Your task to perform on an android device: Search for asus zenbook on walmart.com, select the first entry, and add it to the cart. Image 0: 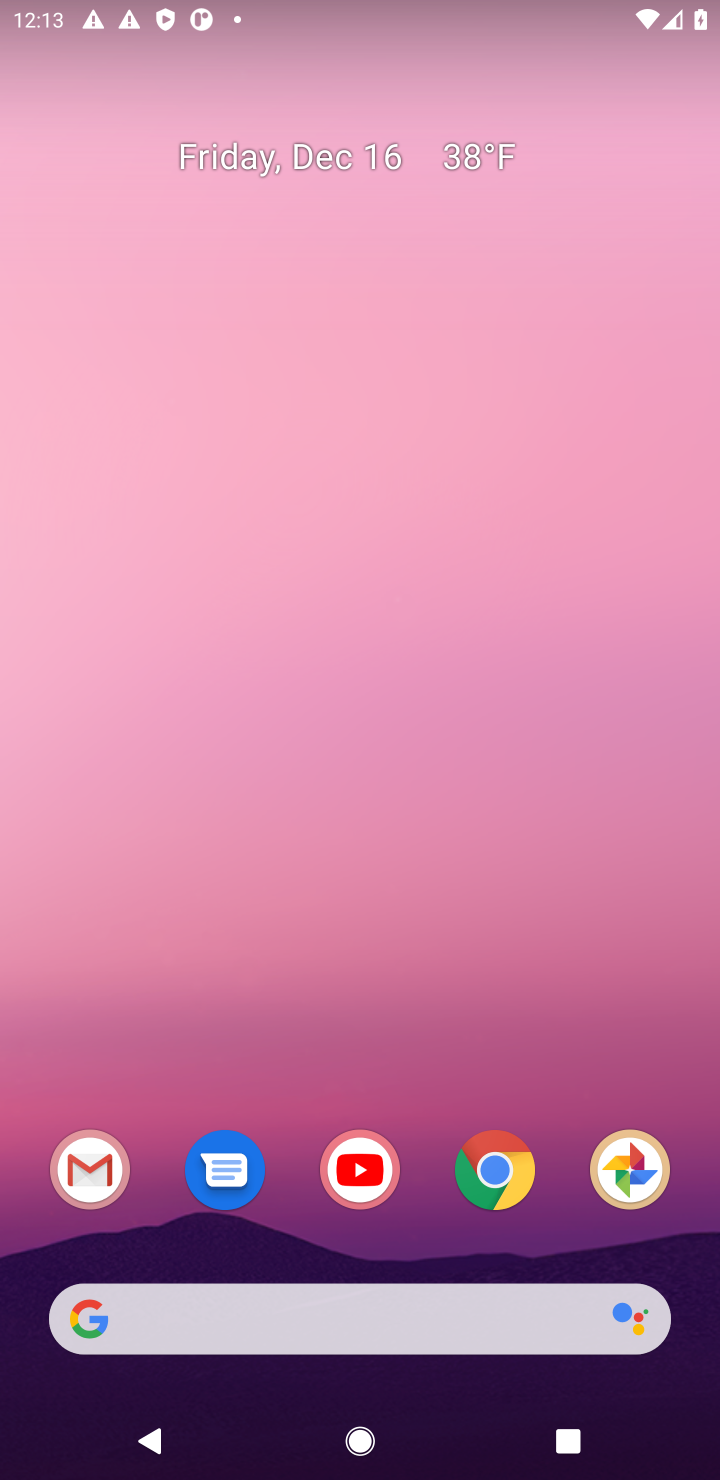
Step 0: click (485, 1181)
Your task to perform on an android device: Search for asus zenbook on walmart.com, select the first entry, and add it to the cart. Image 1: 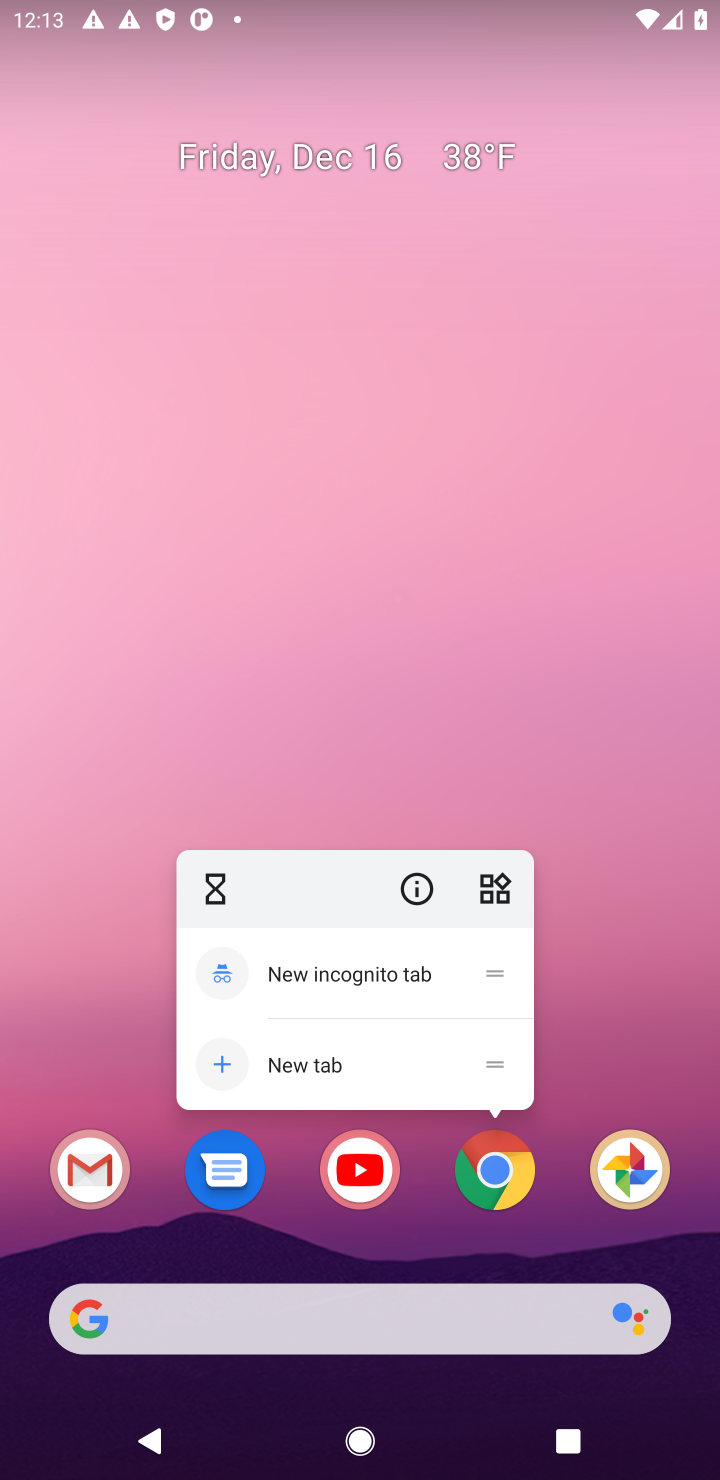
Step 1: click (490, 1176)
Your task to perform on an android device: Search for asus zenbook on walmart.com, select the first entry, and add it to the cart. Image 2: 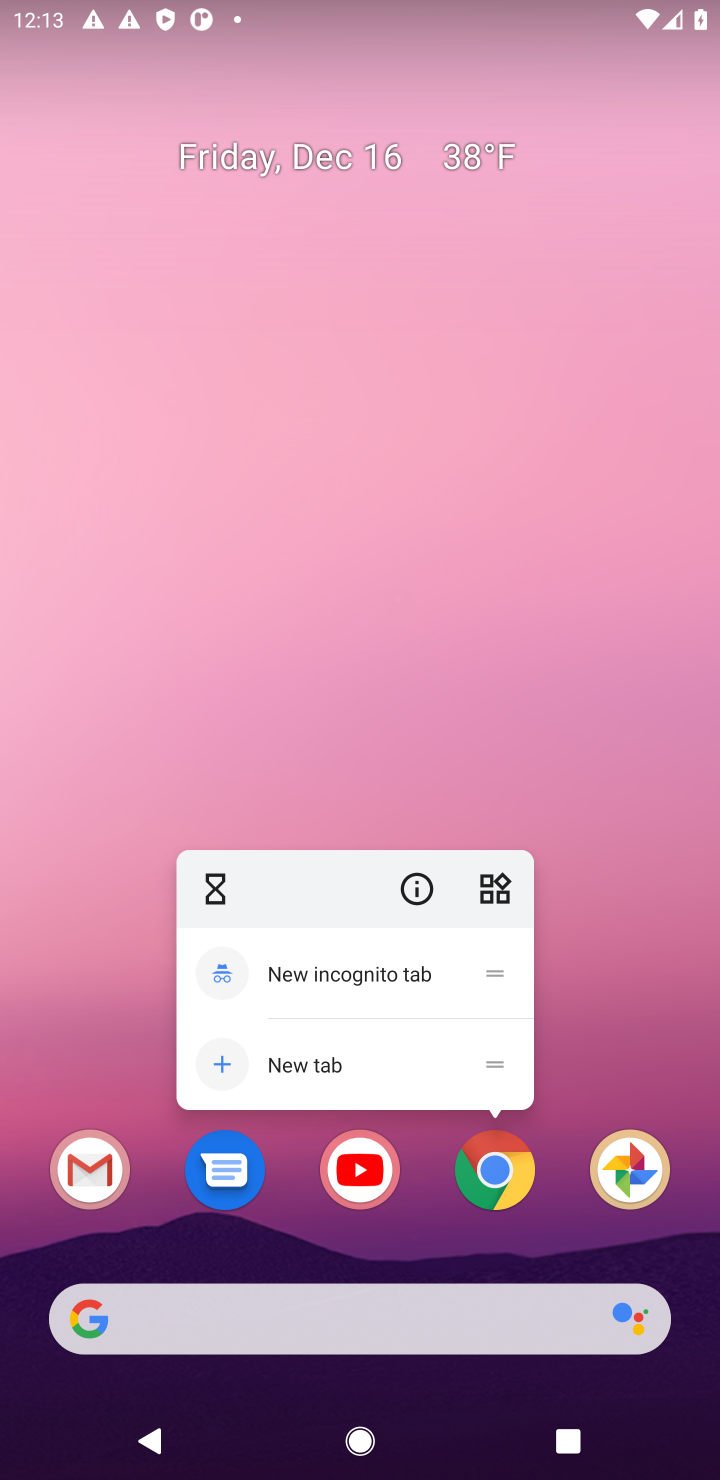
Step 2: click (490, 1176)
Your task to perform on an android device: Search for asus zenbook on walmart.com, select the first entry, and add it to the cart. Image 3: 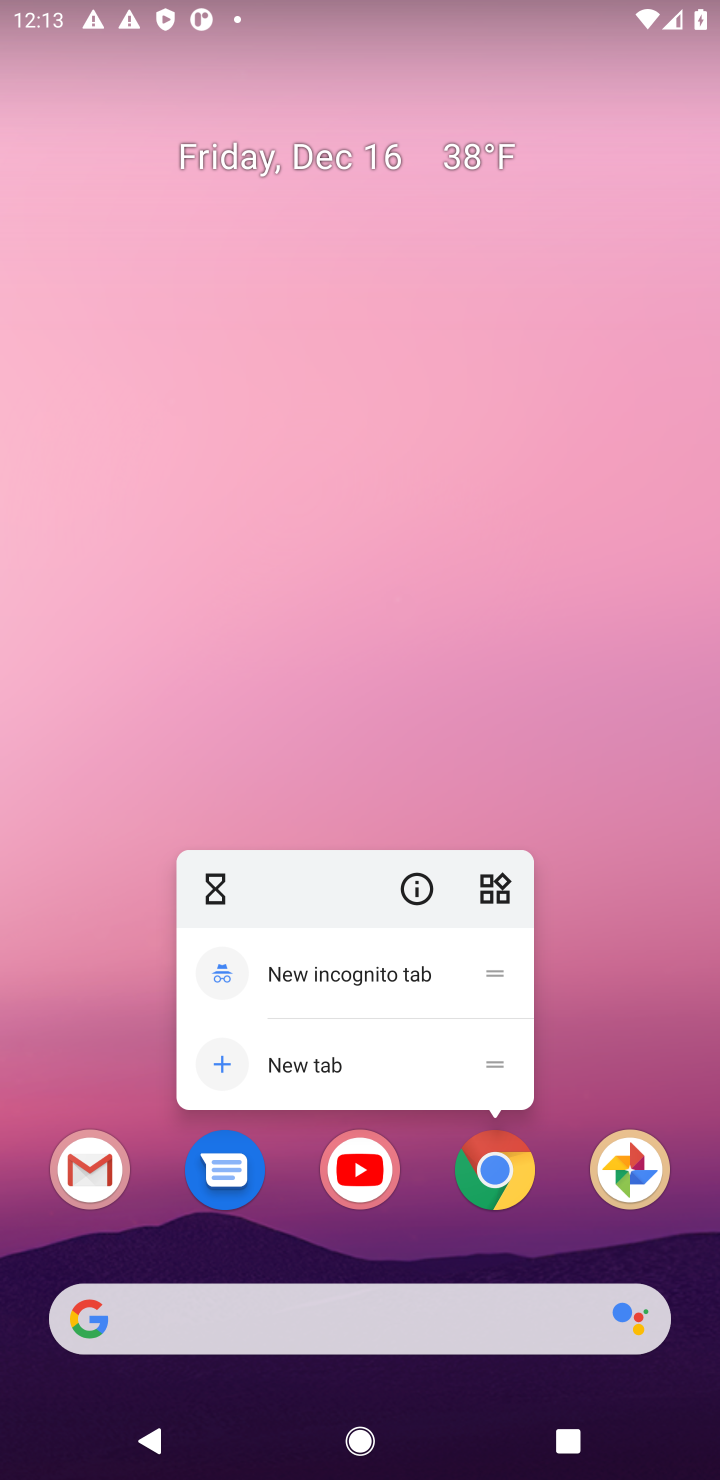
Step 3: click (510, 1176)
Your task to perform on an android device: Search for asus zenbook on walmart.com, select the first entry, and add it to the cart. Image 4: 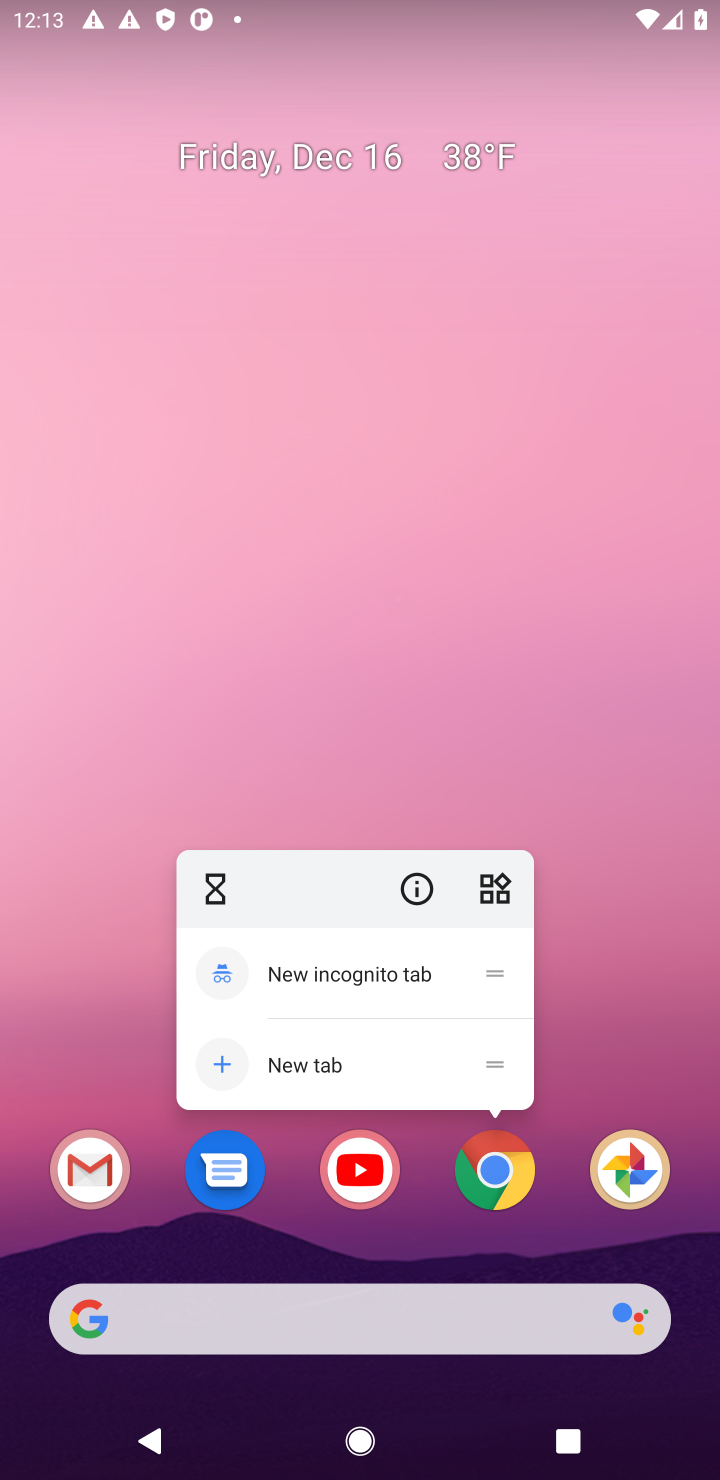
Step 4: click (510, 1176)
Your task to perform on an android device: Search for asus zenbook on walmart.com, select the first entry, and add it to the cart. Image 5: 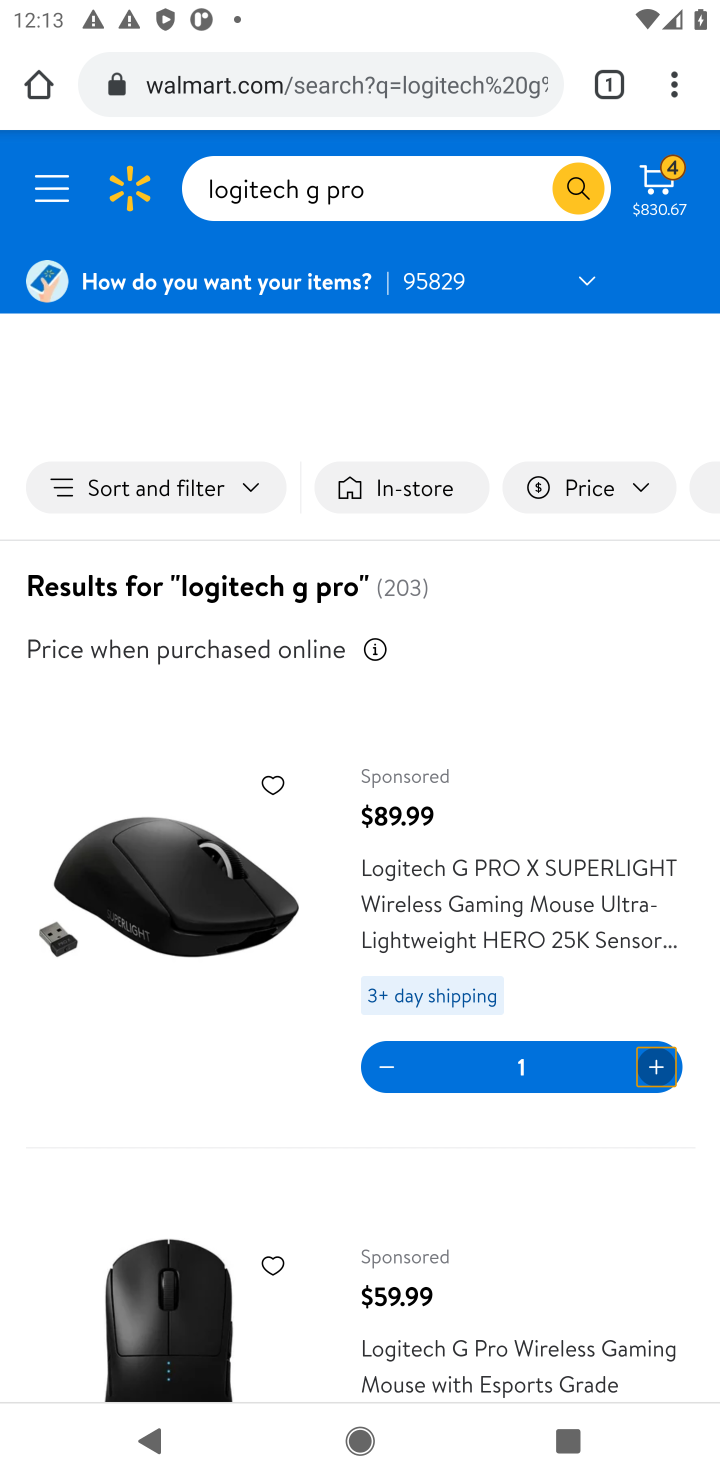
Step 5: click (318, 201)
Your task to perform on an android device: Search for asus zenbook on walmart.com, select the first entry, and add it to the cart. Image 6: 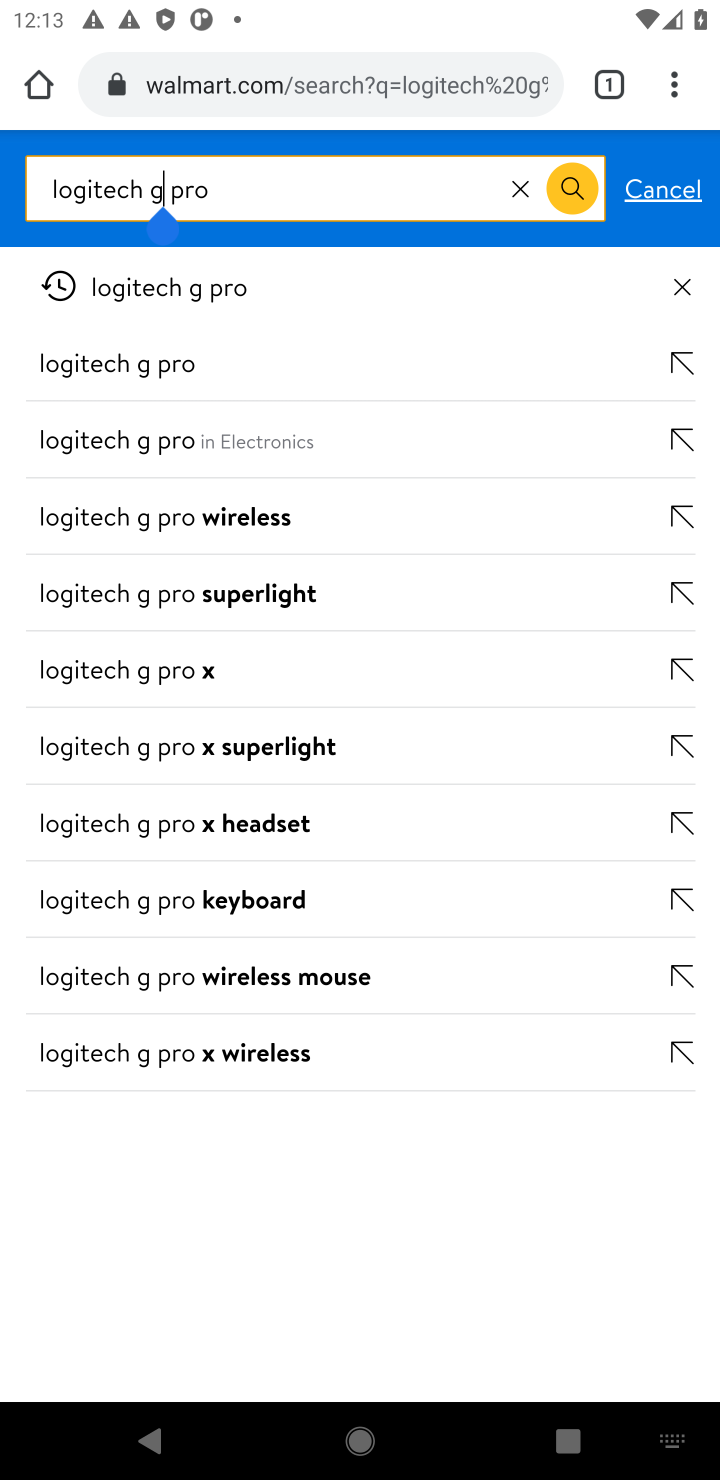
Step 6: click (517, 200)
Your task to perform on an android device: Search for asus zenbook on walmart.com, select the first entry, and add it to the cart. Image 7: 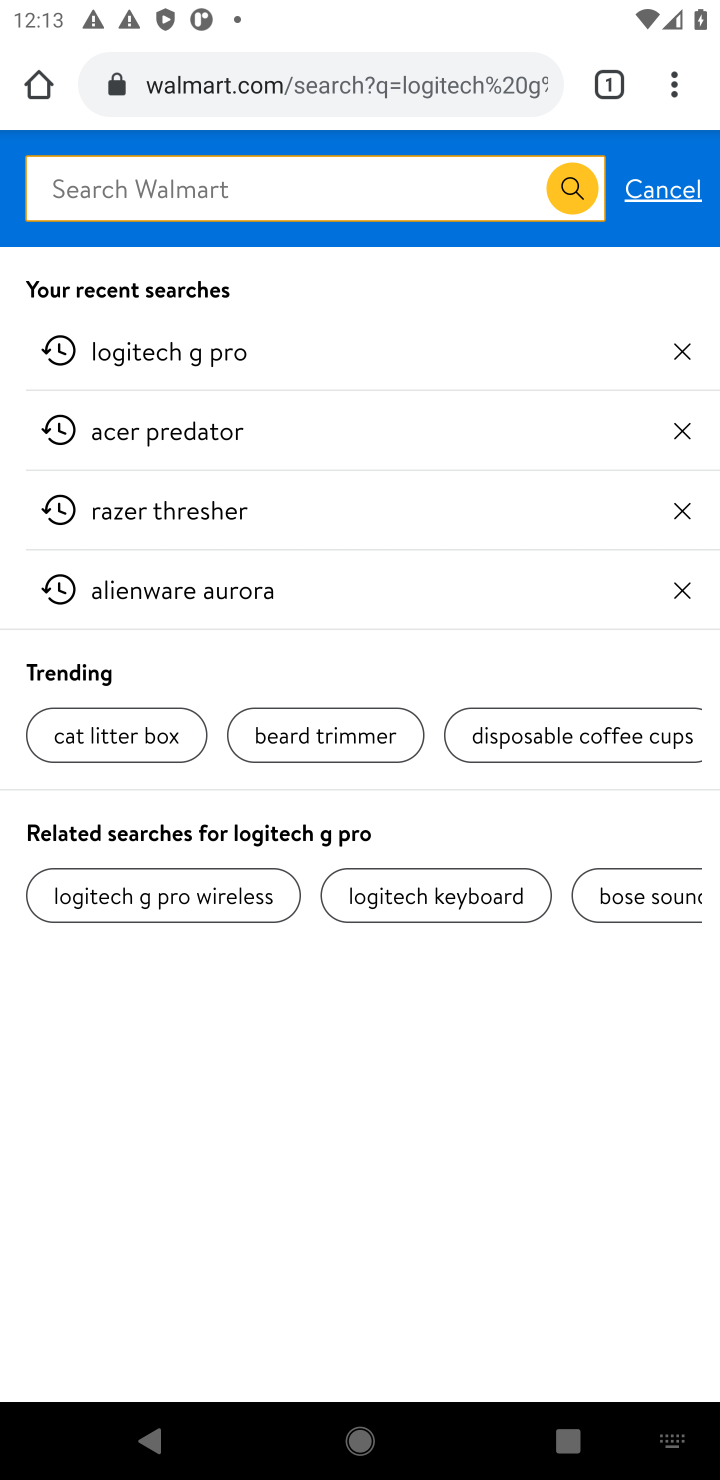
Step 7: type "asus zenbook"
Your task to perform on an android device: Search for asus zenbook on walmart.com, select the first entry, and add it to the cart. Image 8: 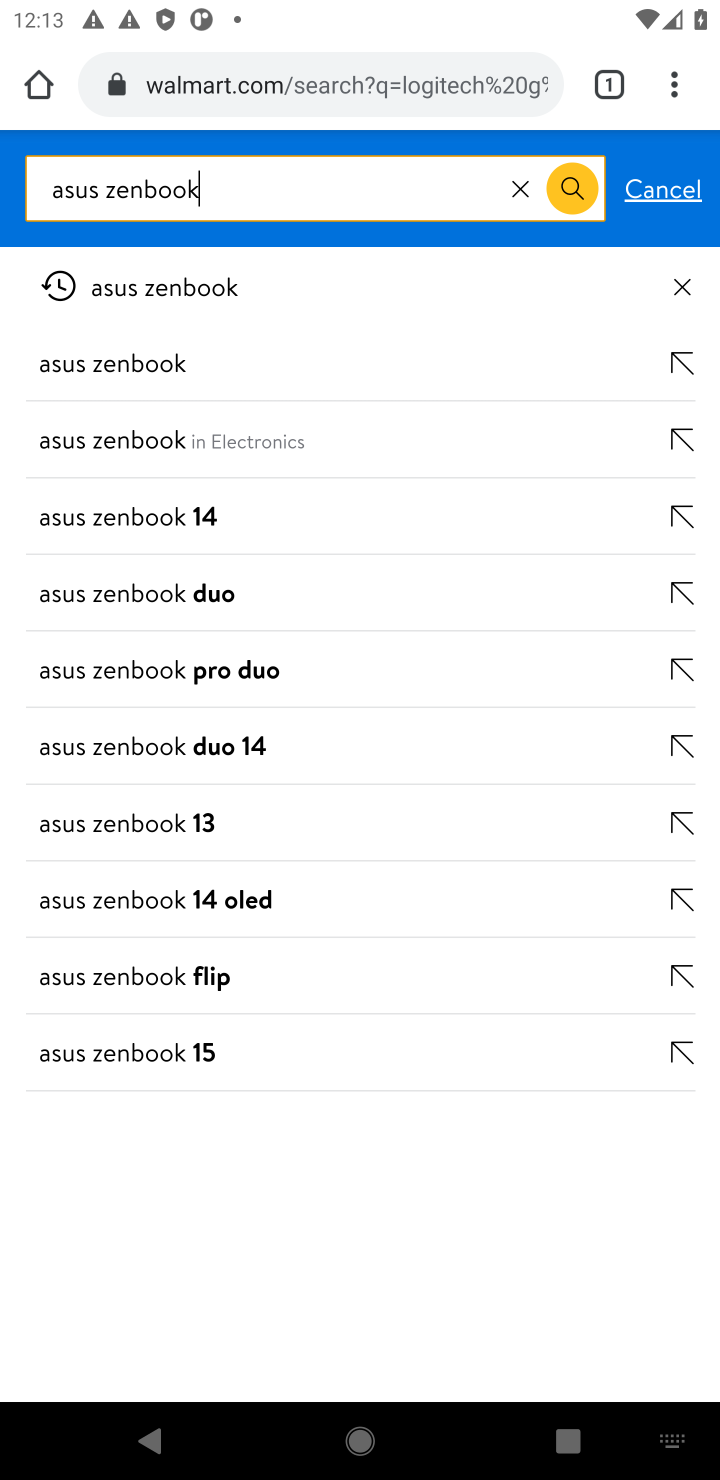
Step 8: click (106, 302)
Your task to perform on an android device: Search for asus zenbook on walmart.com, select the first entry, and add it to the cart. Image 9: 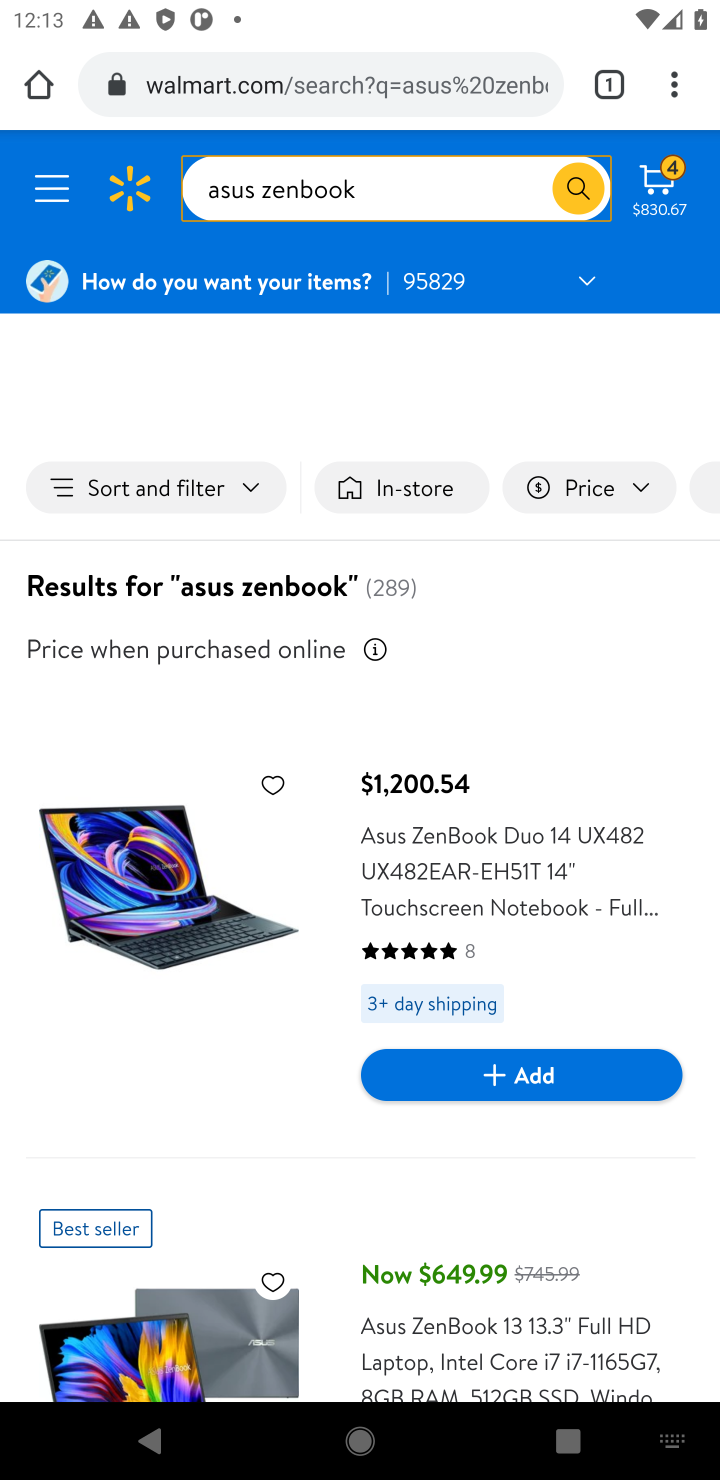
Step 9: click (495, 1074)
Your task to perform on an android device: Search for asus zenbook on walmart.com, select the first entry, and add it to the cart. Image 10: 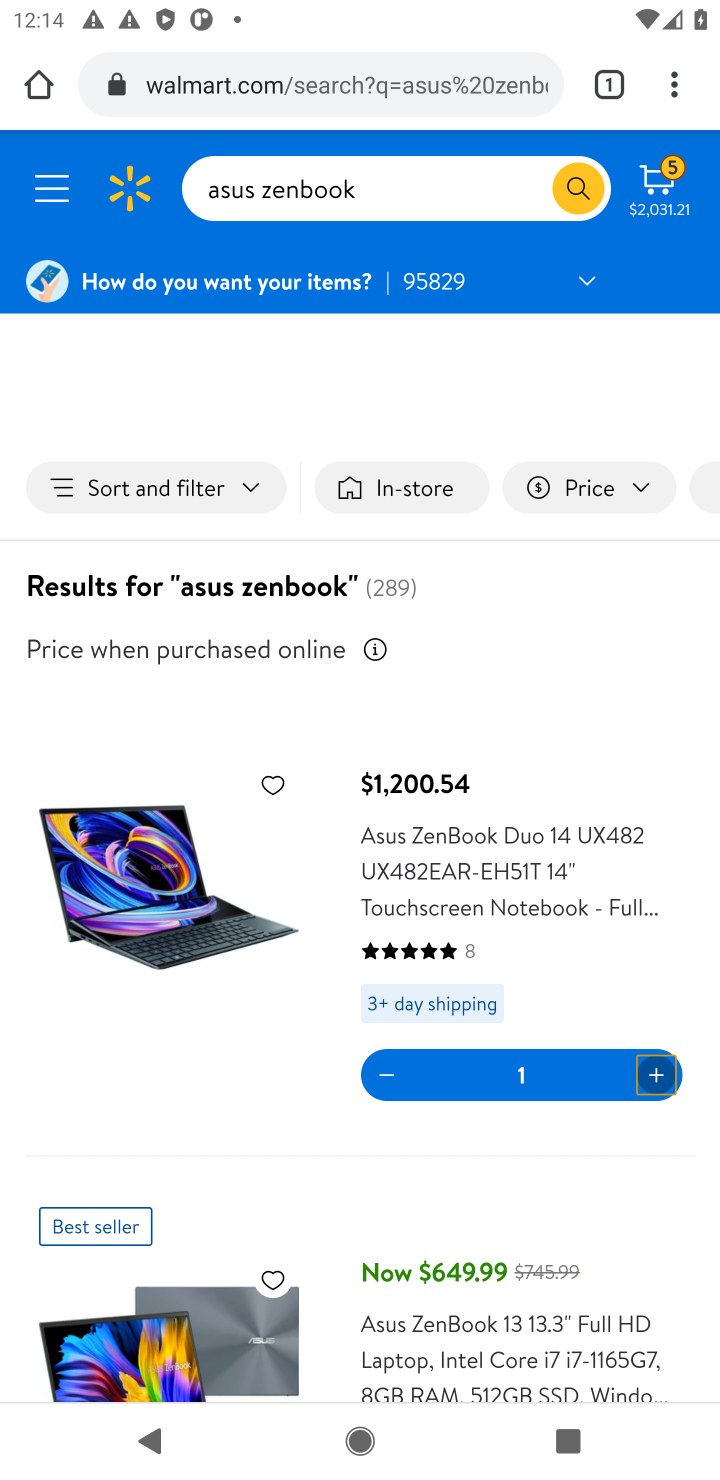
Step 10: task complete